Your task to perform on an android device: toggle data saver in the chrome app Image 0: 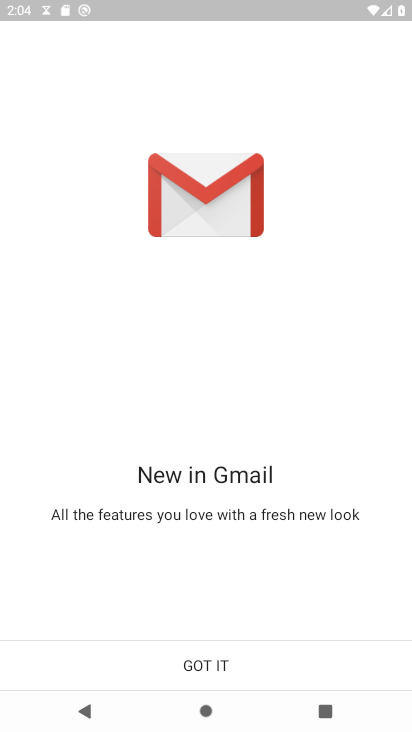
Step 0: press home button
Your task to perform on an android device: toggle data saver in the chrome app Image 1: 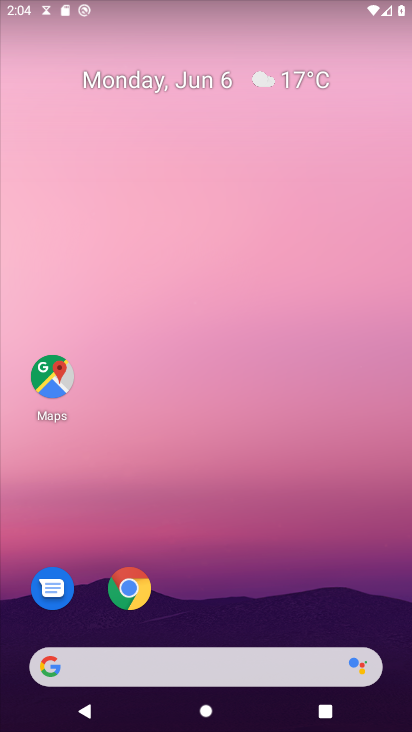
Step 1: click (131, 587)
Your task to perform on an android device: toggle data saver in the chrome app Image 2: 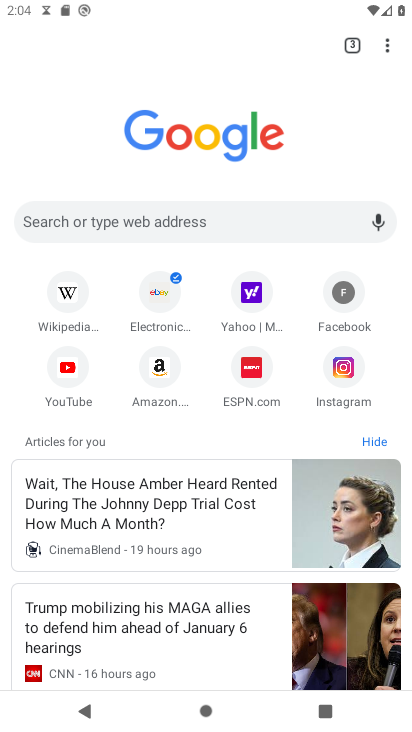
Step 2: click (387, 50)
Your task to perform on an android device: toggle data saver in the chrome app Image 3: 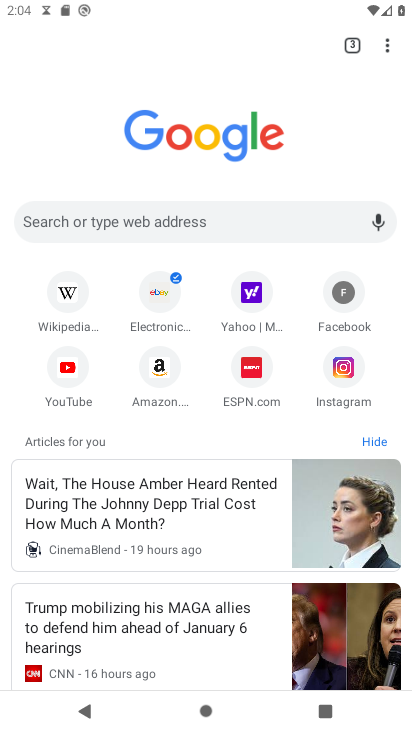
Step 3: click (387, 49)
Your task to perform on an android device: toggle data saver in the chrome app Image 4: 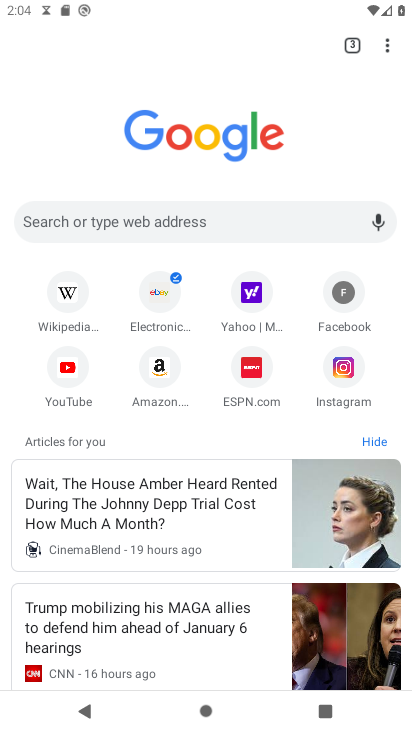
Step 4: click (386, 52)
Your task to perform on an android device: toggle data saver in the chrome app Image 5: 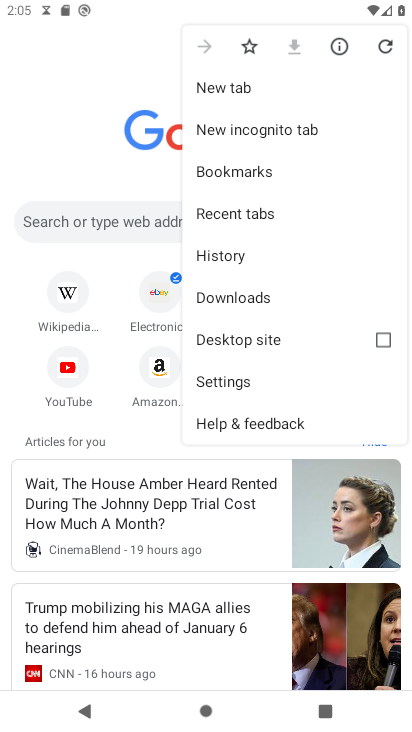
Step 5: click (243, 384)
Your task to perform on an android device: toggle data saver in the chrome app Image 6: 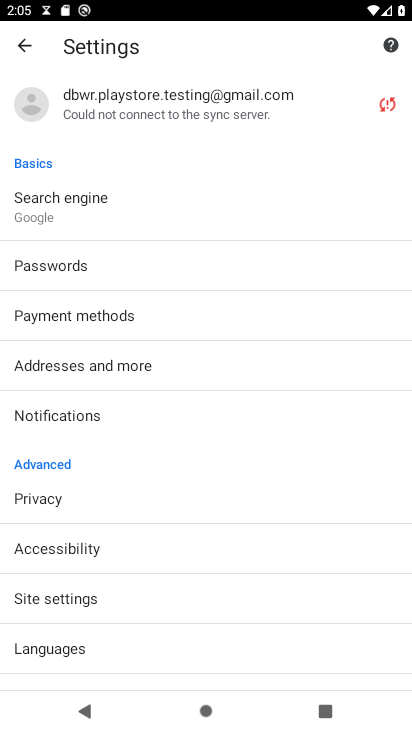
Step 6: drag from (52, 654) to (105, 408)
Your task to perform on an android device: toggle data saver in the chrome app Image 7: 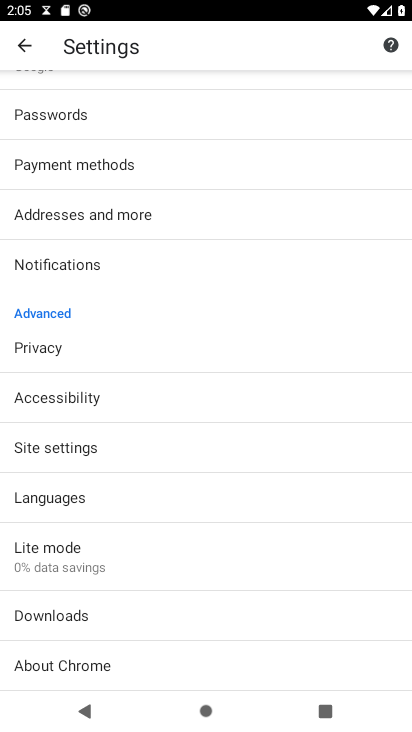
Step 7: click (54, 555)
Your task to perform on an android device: toggle data saver in the chrome app Image 8: 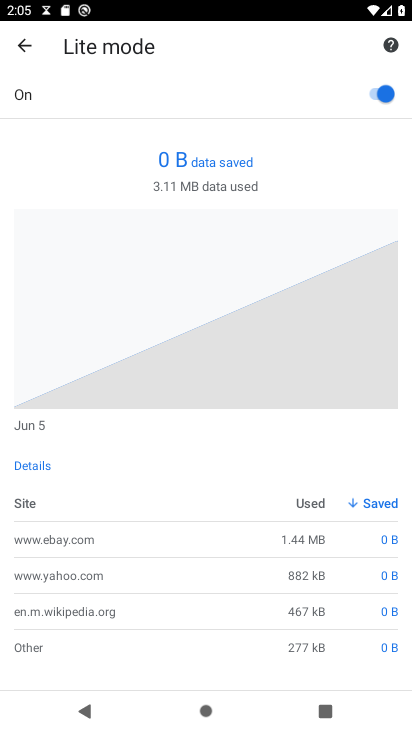
Step 8: click (374, 99)
Your task to perform on an android device: toggle data saver in the chrome app Image 9: 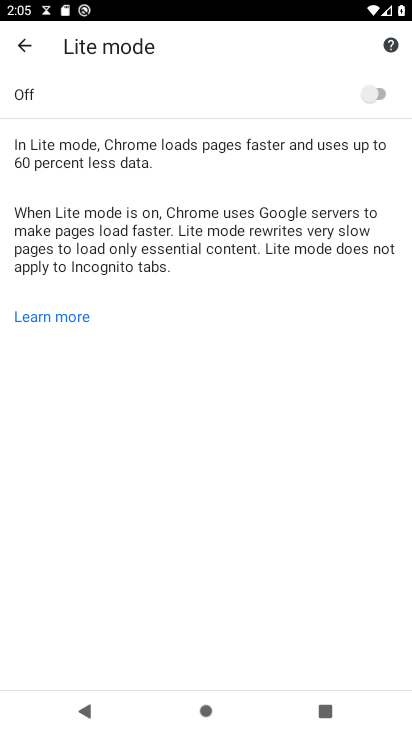
Step 9: task complete